Your task to perform on an android device: set default search engine in the chrome app Image 0: 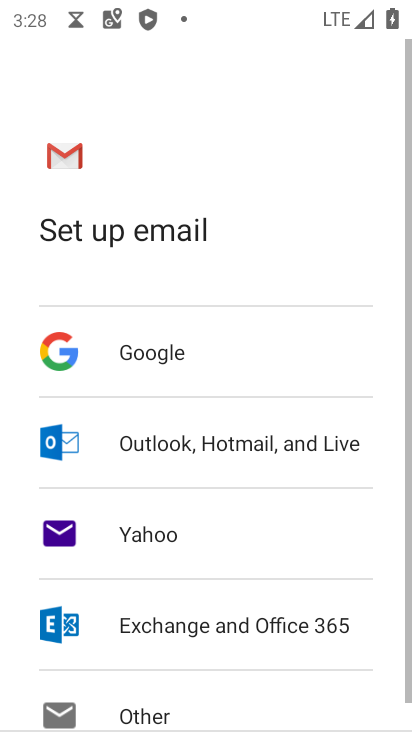
Step 0: press home button
Your task to perform on an android device: set default search engine in the chrome app Image 1: 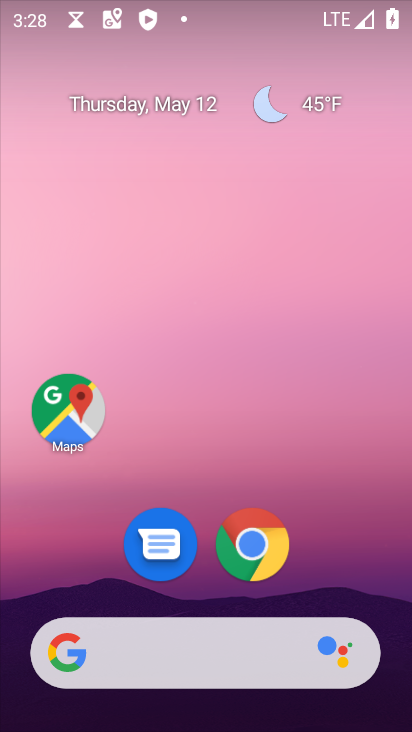
Step 1: click (259, 531)
Your task to perform on an android device: set default search engine in the chrome app Image 2: 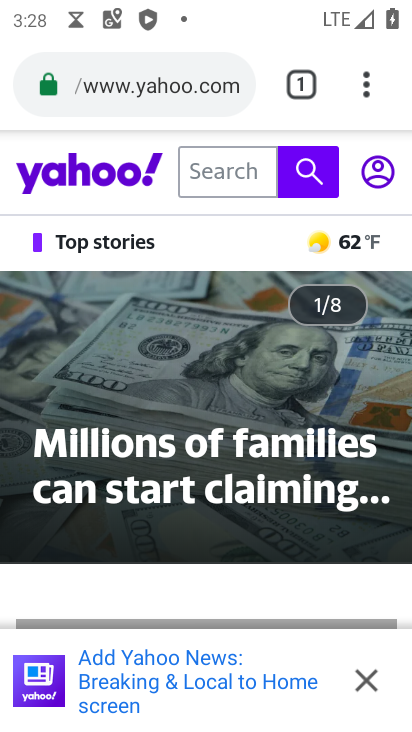
Step 2: click (354, 95)
Your task to perform on an android device: set default search engine in the chrome app Image 3: 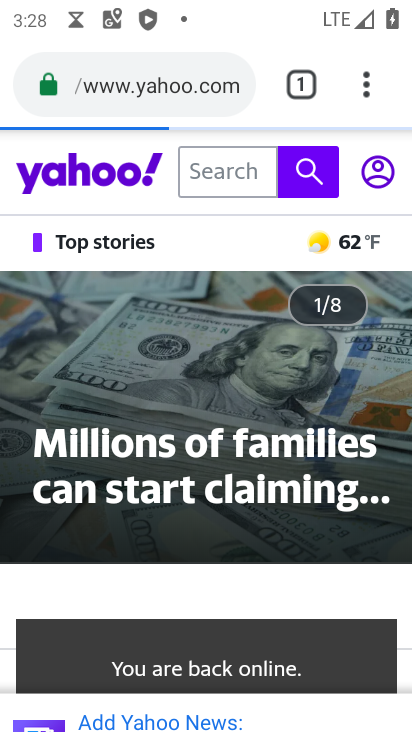
Step 3: click (356, 95)
Your task to perform on an android device: set default search engine in the chrome app Image 4: 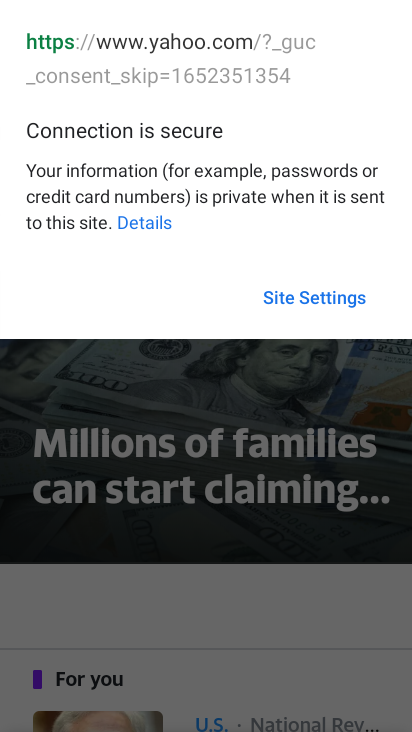
Step 4: click (356, 96)
Your task to perform on an android device: set default search engine in the chrome app Image 5: 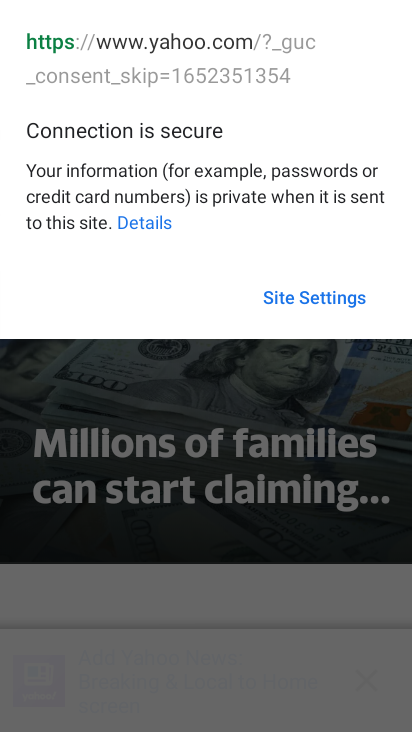
Step 5: click (345, 419)
Your task to perform on an android device: set default search engine in the chrome app Image 6: 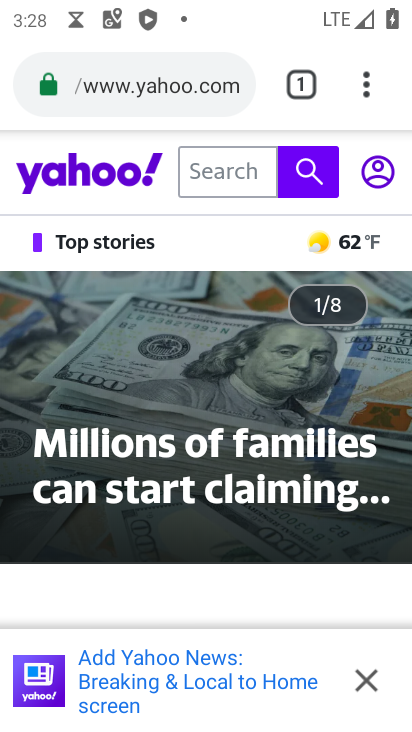
Step 6: click (373, 99)
Your task to perform on an android device: set default search engine in the chrome app Image 7: 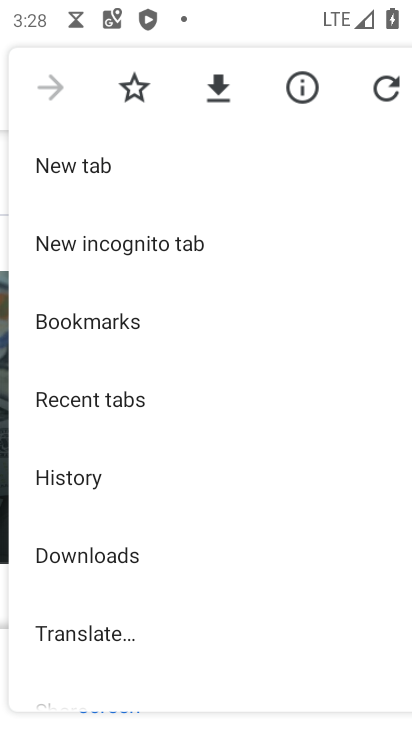
Step 7: drag from (282, 635) to (228, 313)
Your task to perform on an android device: set default search engine in the chrome app Image 8: 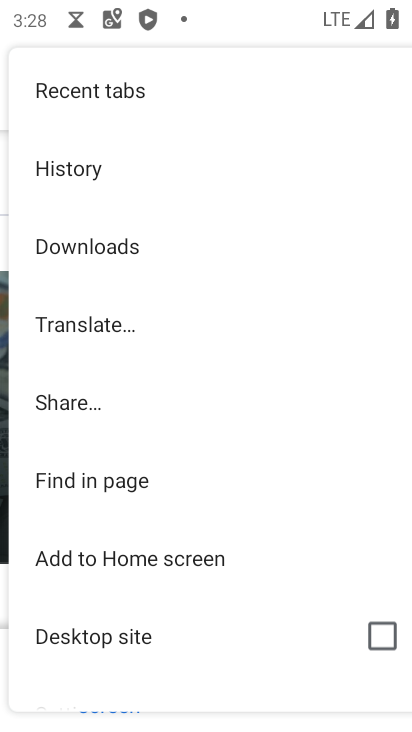
Step 8: drag from (198, 628) to (127, 372)
Your task to perform on an android device: set default search engine in the chrome app Image 9: 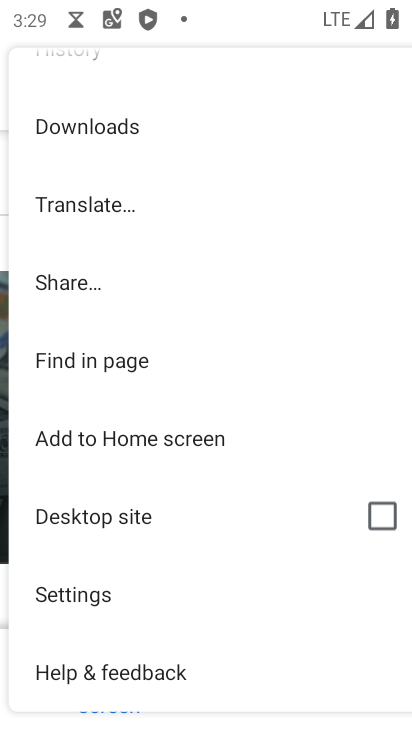
Step 9: click (166, 587)
Your task to perform on an android device: set default search engine in the chrome app Image 10: 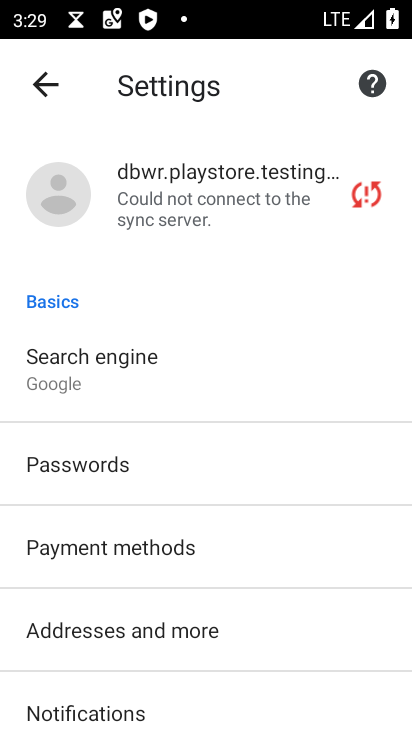
Step 10: click (89, 378)
Your task to perform on an android device: set default search engine in the chrome app Image 11: 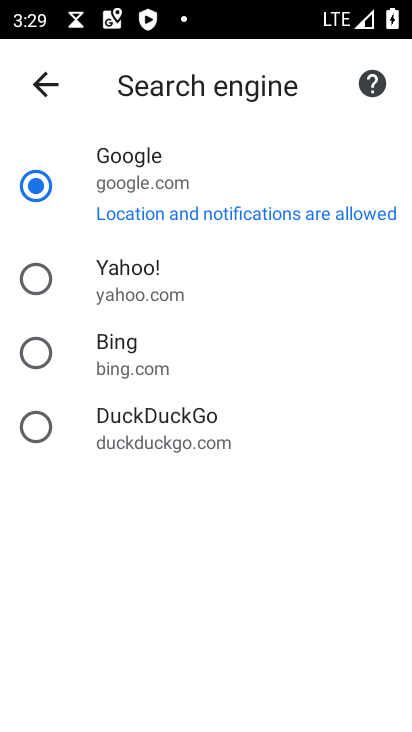
Step 11: click (150, 278)
Your task to perform on an android device: set default search engine in the chrome app Image 12: 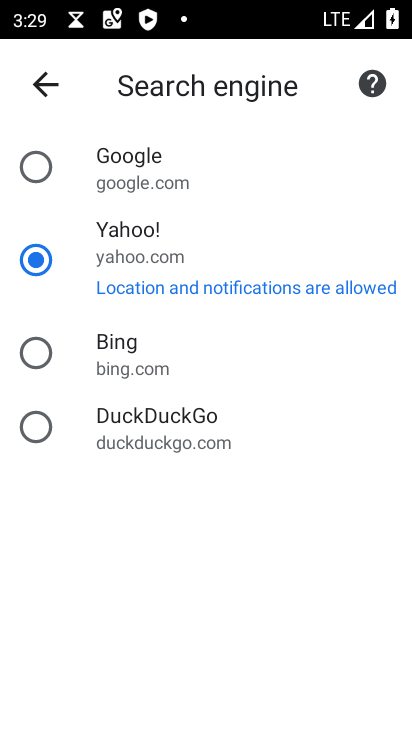
Step 12: task complete